Your task to perform on an android device: Check the news Image 0: 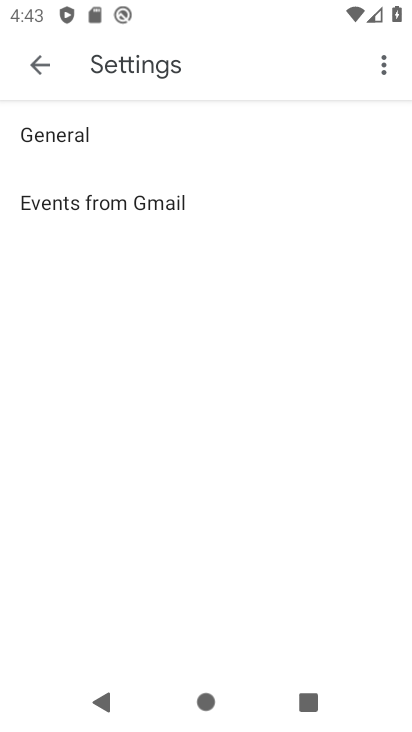
Step 0: press home button
Your task to perform on an android device: Check the news Image 1: 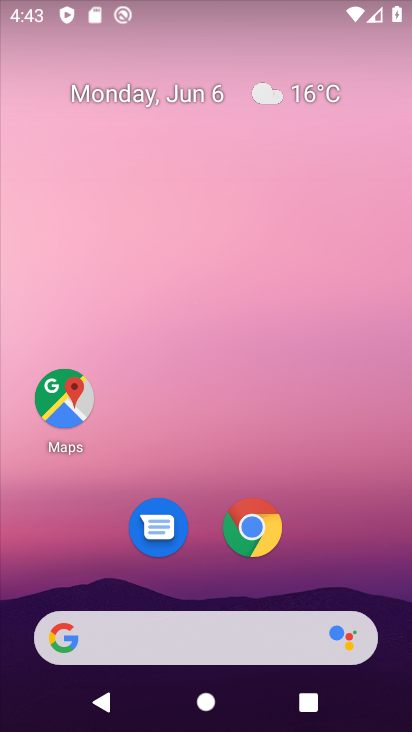
Step 1: task complete